Your task to perform on an android device: Toggle the flashlight Image 0: 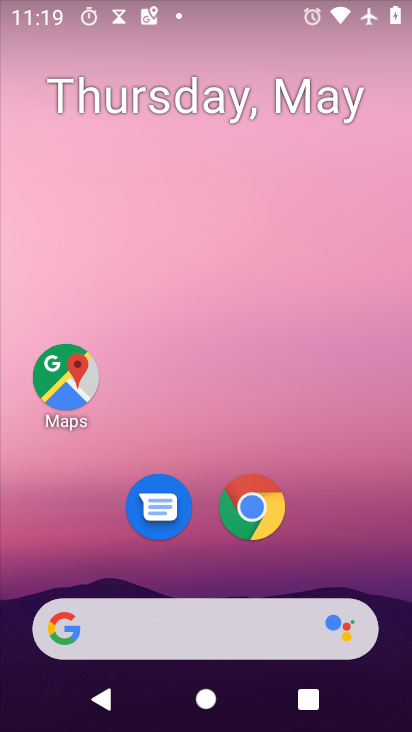
Step 0: drag from (347, 520) to (226, 24)
Your task to perform on an android device: Toggle the flashlight Image 1: 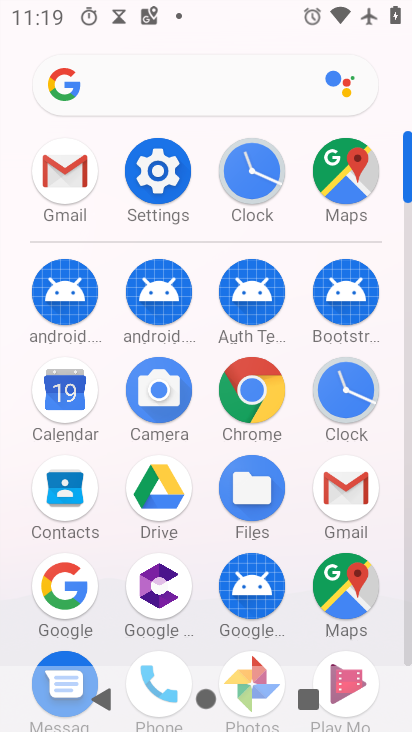
Step 1: drag from (10, 577) to (15, 285)
Your task to perform on an android device: Toggle the flashlight Image 2: 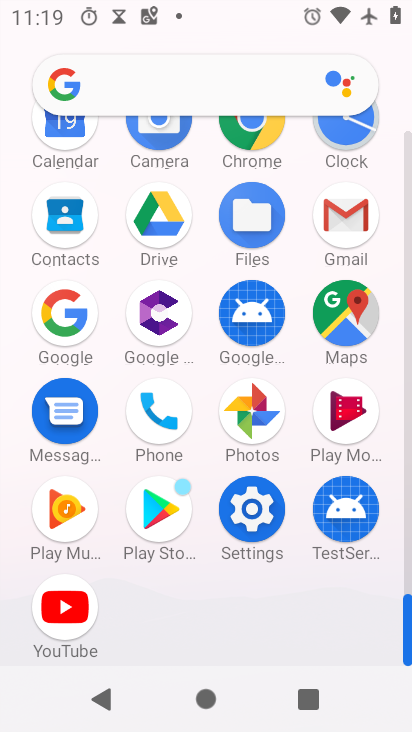
Step 2: click (252, 509)
Your task to perform on an android device: Toggle the flashlight Image 3: 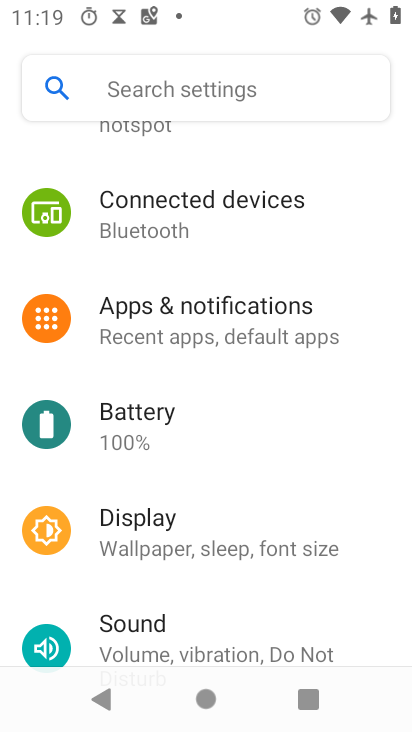
Step 3: drag from (264, 260) to (225, 686)
Your task to perform on an android device: Toggle the flashlight Image 4: 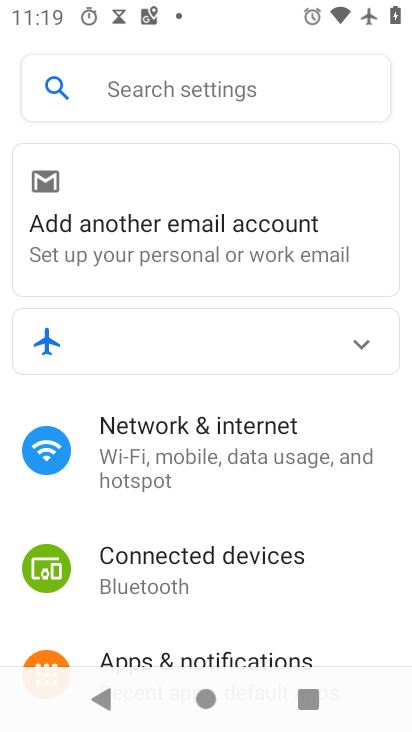
Step 4: click (238, 429)
Your task to perform on an android device: Toggle the flashlight Image 5: 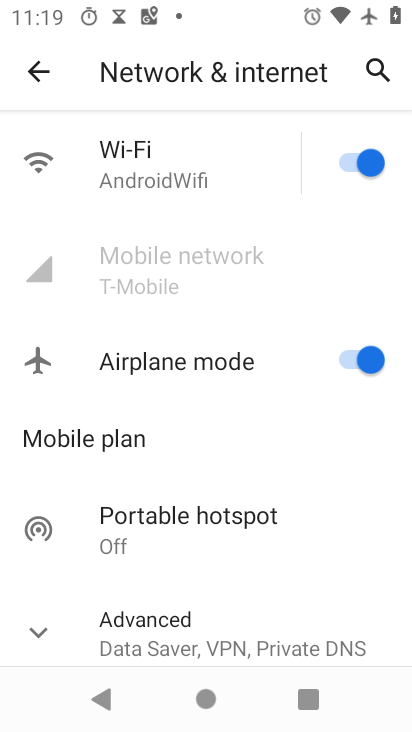
Step 5: click (43, 626)
Your task to perform on an android device: Toggle the flashlight Image 6: 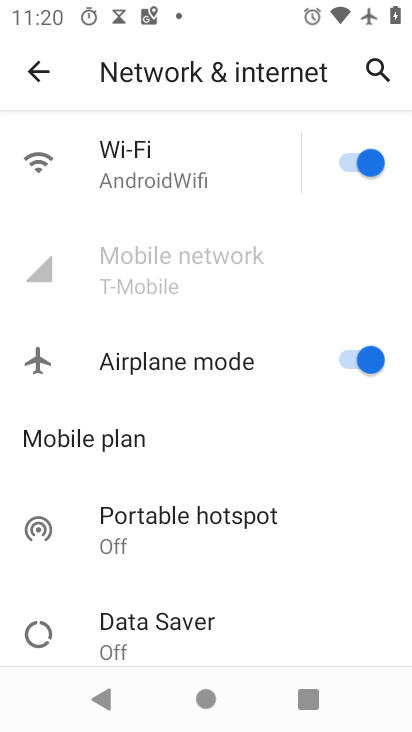
Step 6: task complete